Your task to perform on an android device: toggle show notifications on the lock screen Image 0: 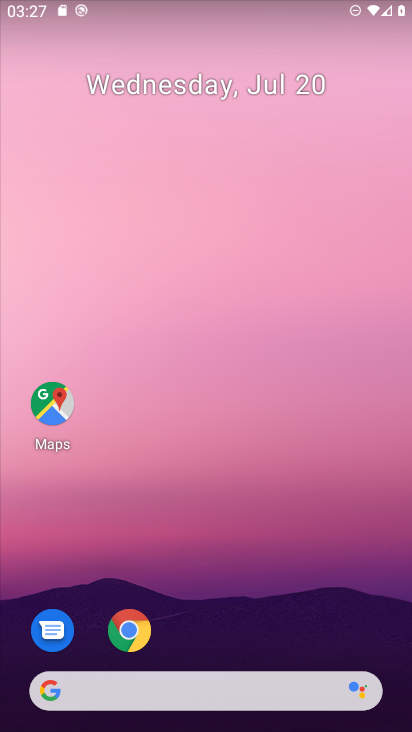
Step 0: drag from (329, 629) to (348, 200)
Your task to perform on an android device: toggle show notifications on the lock screen Image 1: 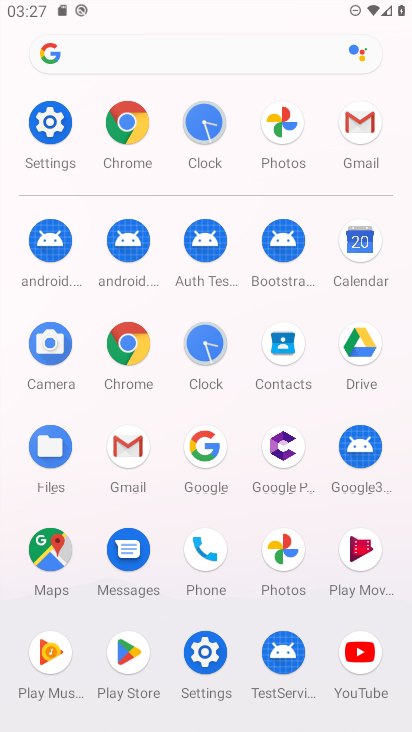
Step 1: click (60, 132)
Your task to perform on an android device: toggle show notifications on the lock screen Image 2: 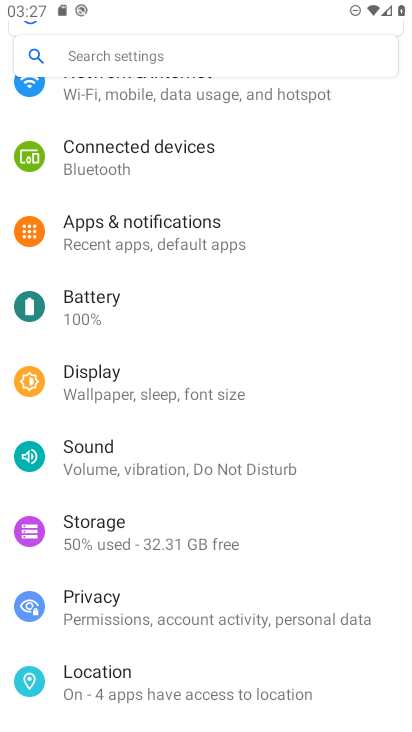
Step 2: click (121, 226)
Your task to perform on an android device: toggle show notifications on the lock screen Image 3: 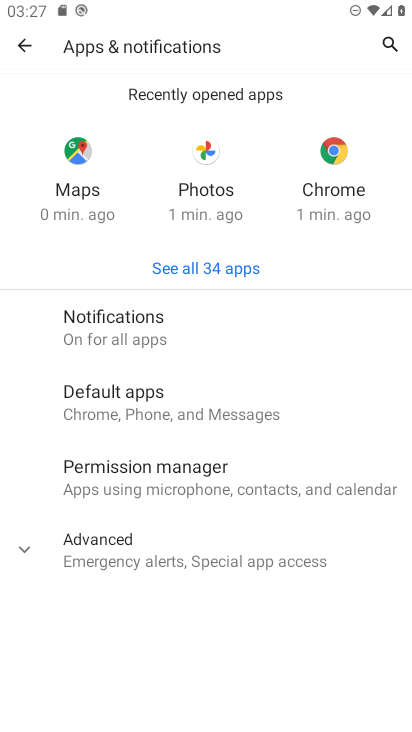
Step 3: click (162, 323)
Your task to perform on an android device: toggle show notifications on the lock screen Image 4: 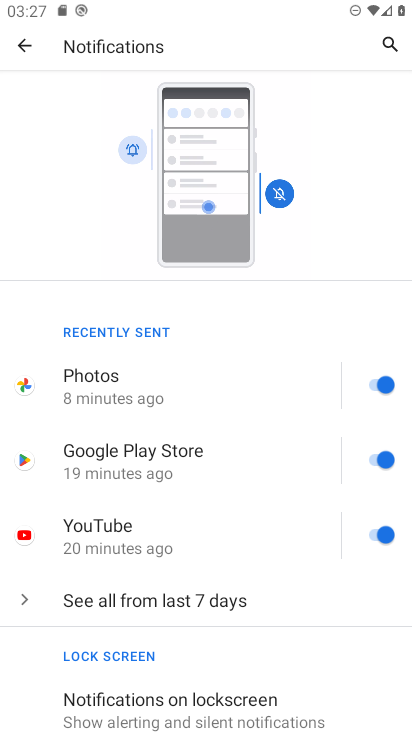
Step 4: drag from (267, 611) to (289, 447)
Your task to perform on an android device: toggle show notifications on the lock screen Image 5: 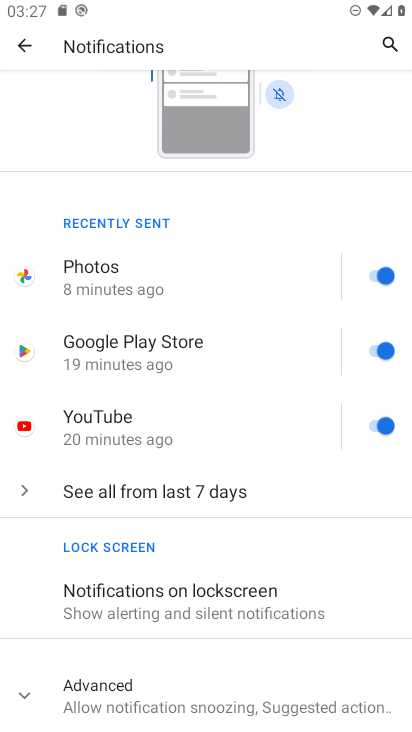
Step 5: click (282, 586)
Your task to perform on an android device: toggle show notifications on the lock screen Image 6: 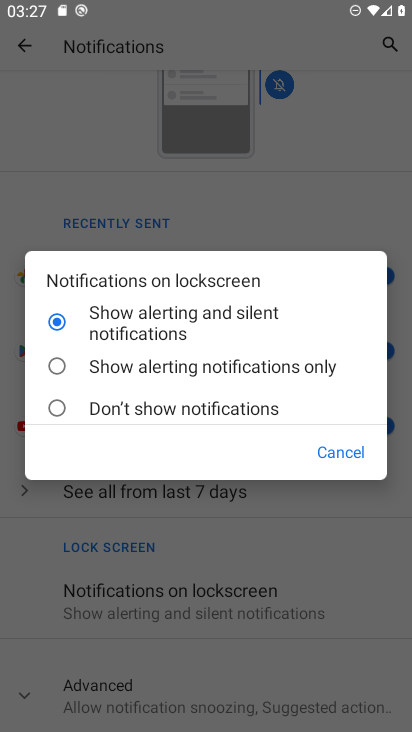
Step 6: click (196, 364)
Your task to perform on an android device: toggle show notifications on the lock screen Image 7: 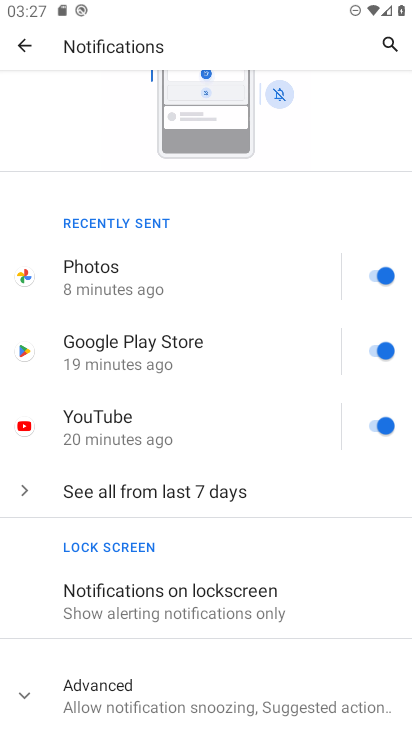
Step 7: task complete